Your task to perform on an android device: see tabs open on other devices in the chrome app Image 0: 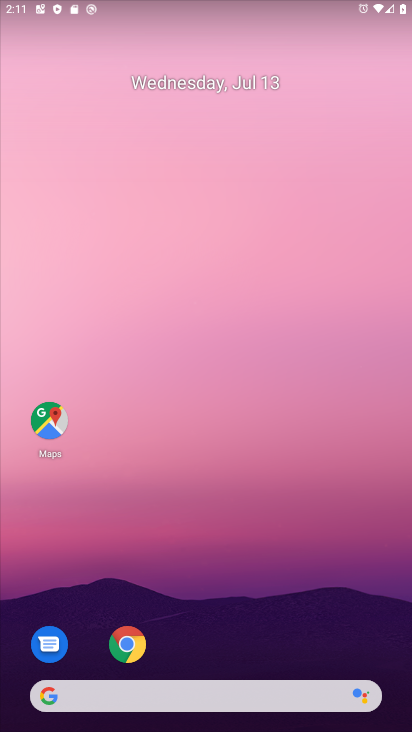
Step 0: drag from (218, 670) to (157, 151)
Your task to perform on an android device: see tabs open on other devices in the chrome app Image 1: 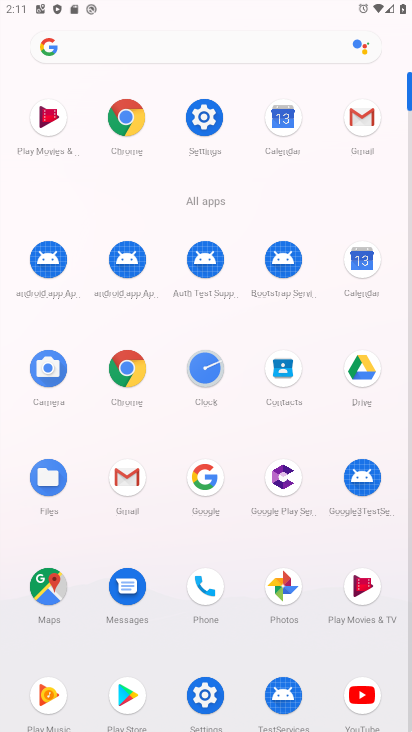
Step 1: click (134, 379)
Your task to perform on an android device: see tabs open on other devices in the chrome app Image 2: 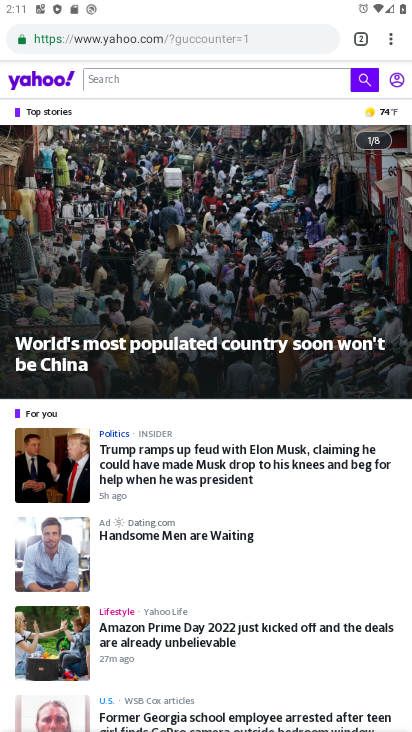
Step 2: task complete